Your task to perform on an android device: toggle translation in the chrome app Image 0: 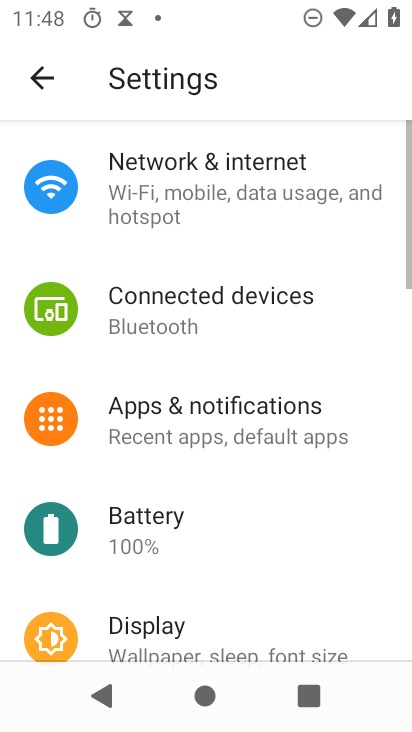
Step 0: press home button
Your task to perform on an android device: toggle translation in the chrome app Image 1: 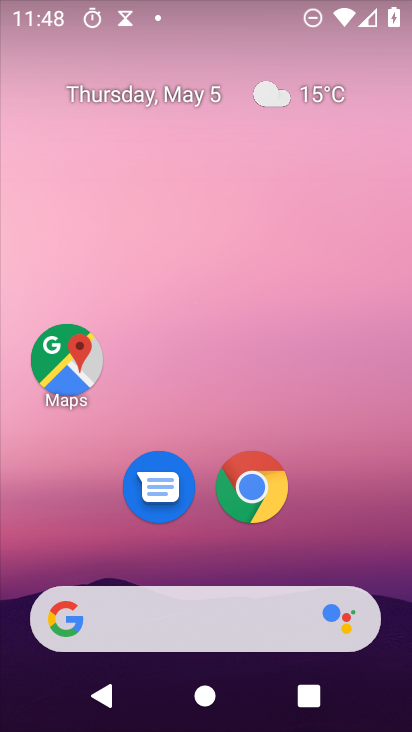
Step 1: drag from (311, 524) to (168, 3)
Your task to perform on an android device: toggle translation in the chrome app Image 2: 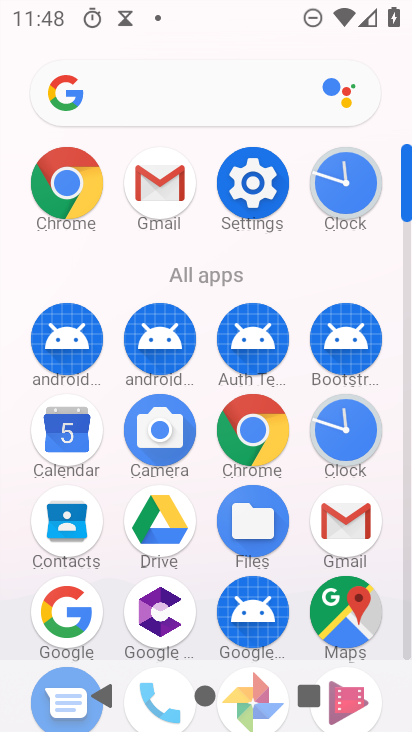
Step 2: click (67, 191)
Your task to perform on an android device: toggle translation in the chrome app Image 3: 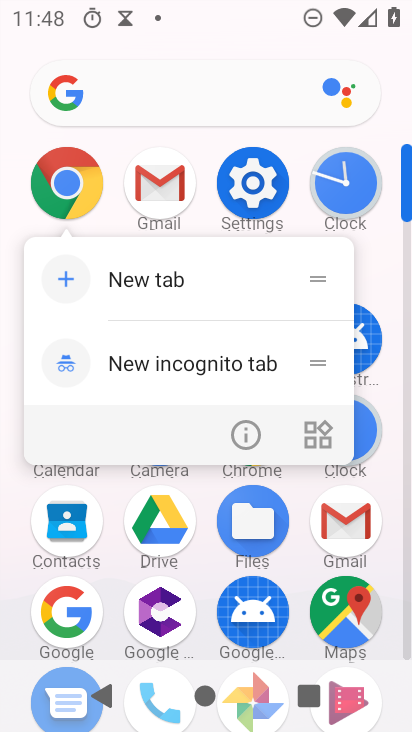
Step 3: click (67, 191)
Your task to perform on an android device: toggle translation in the chrome app Image 4: 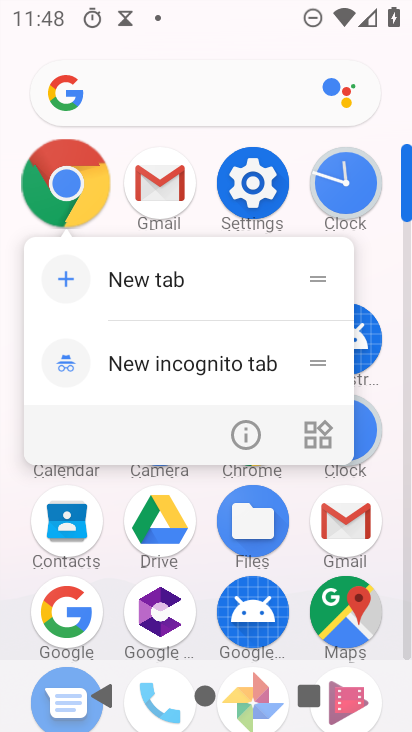
Step 4: click (67, 191)
Your task to perform on an android device: toggle translation in the chrome app Image 5: 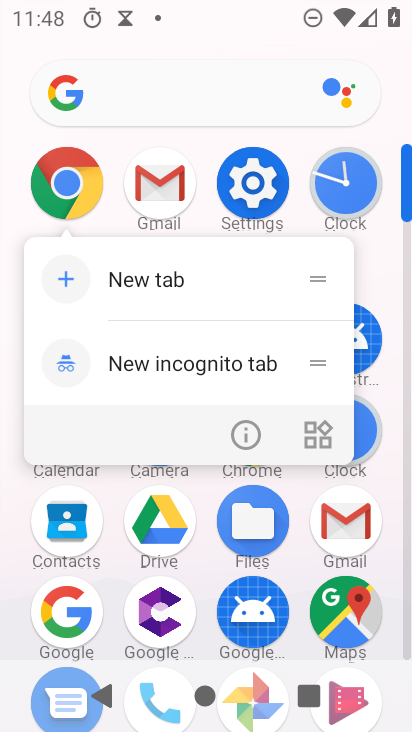
Step 5: click (67, 191)
Your task to perform on an android device: toggle translation in the chrome app Image 6: 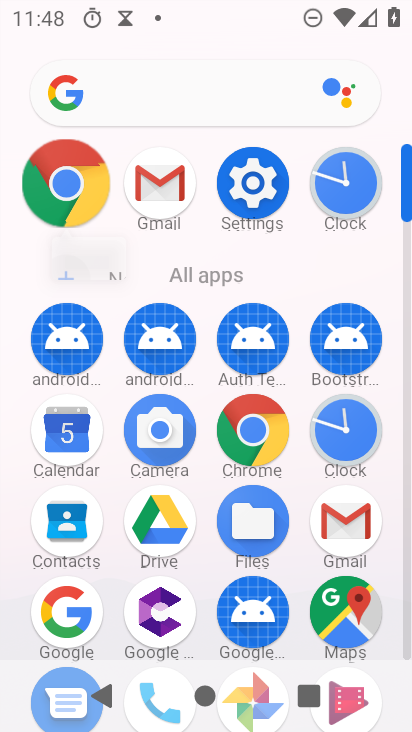
Step 6: click (67, 191)
Your task to perform on an android device: toggle translation in the chrome app Image 7: 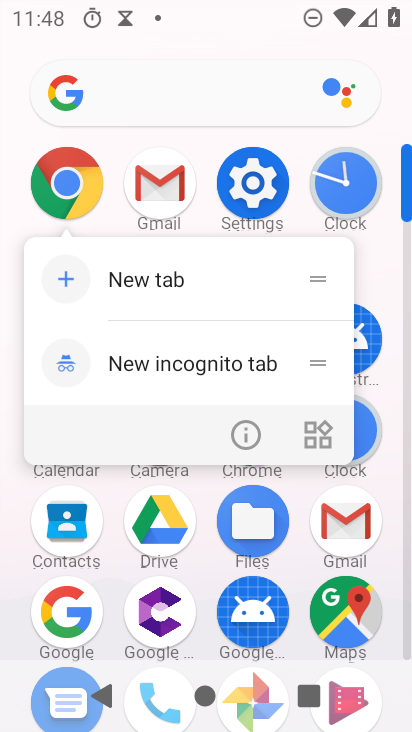
Step 7: click (67, 191)
Your task to perform on an android device: toggle translation in the chrome app Image 8: 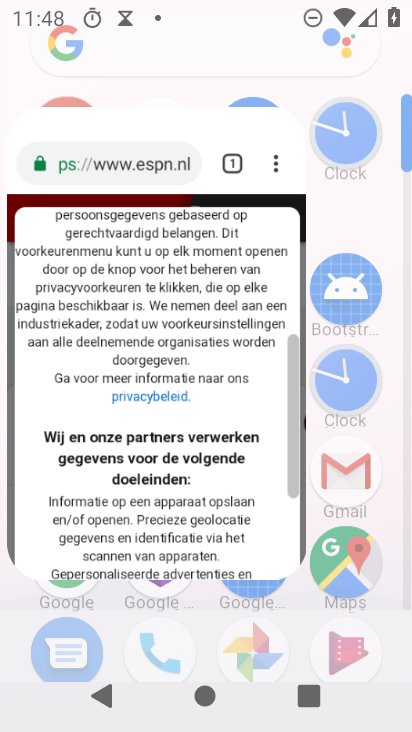
Step 8: click (71, 191)
Your task to perform on an android device: toggle translation in the chrome app Image 9: 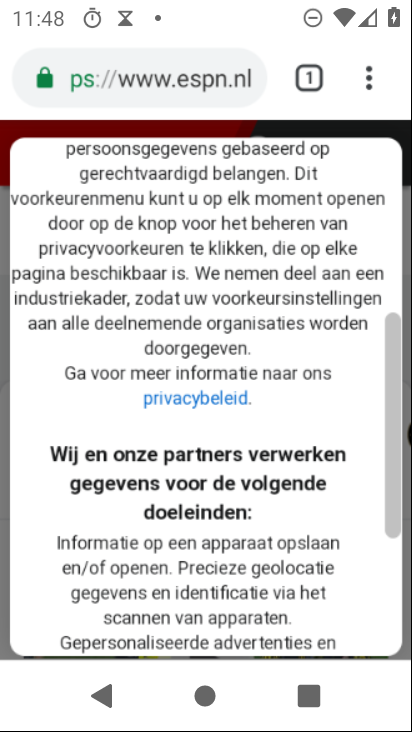
Step 9: click (71, 191)
Your task to perform on an android device: toggle translation in the chrome app Image 10: 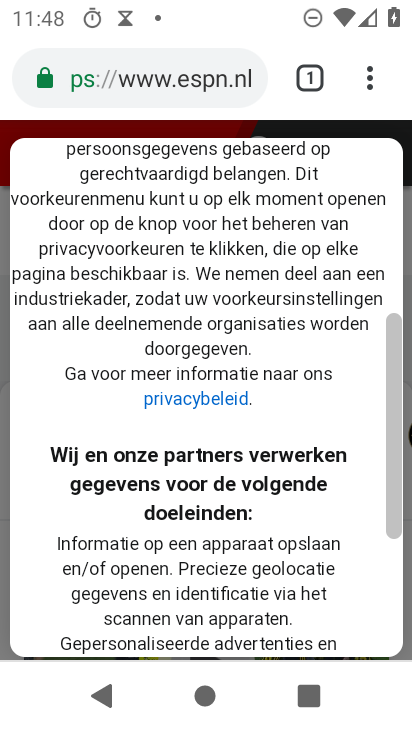
Step 10: drag from (359, 76) to (85, 553)
Your task to perform on an android device: toggle translation in the chrome app Image 11: 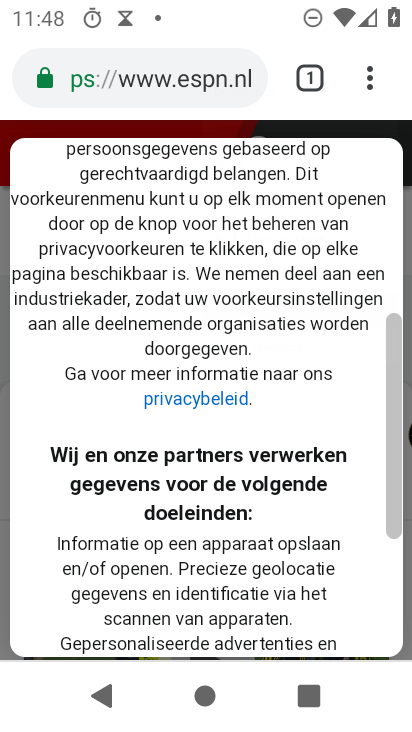
Step 11: click (86, 552)
Your task to perform on an android device: toggle translation in the chrome app Image 12: 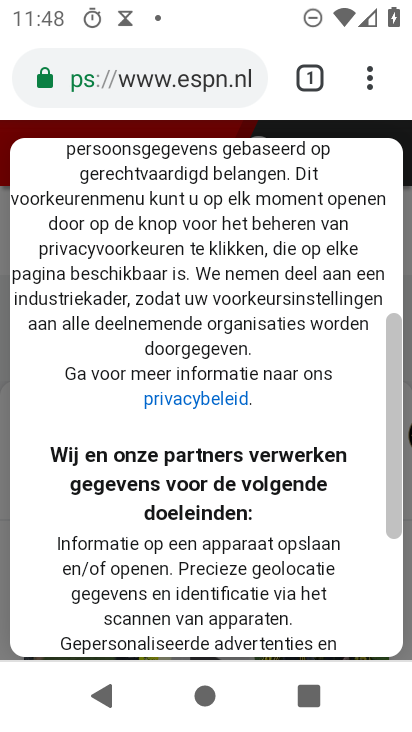
Step 12: click (86, 552)
Your task to perform on an android device: toggle translation in the chrome app Image 13: 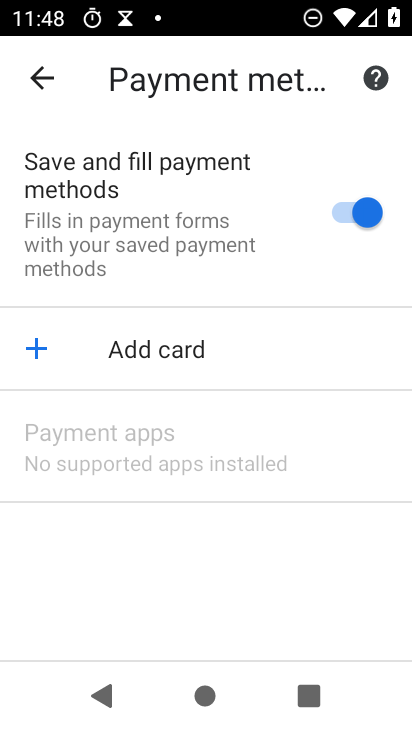
Step 13: click (41, 82)
Your task to perform on an android device: toggle translation in the chrome app Image 14: 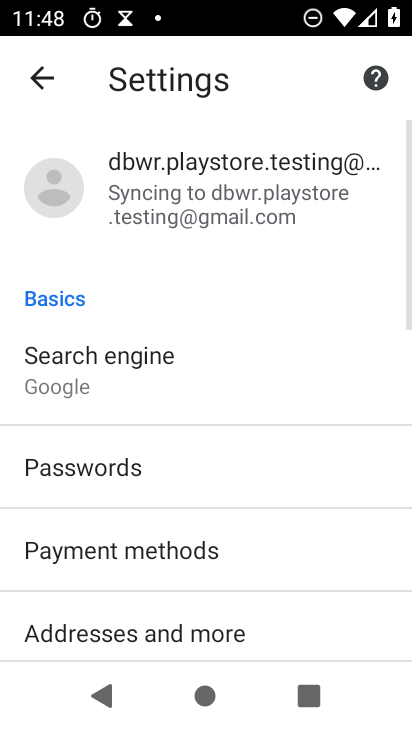
Step 14: drag from (212, 590) to (301, 121)
Your task to perform on an android device: toggle translation in the chrome app Image 15: 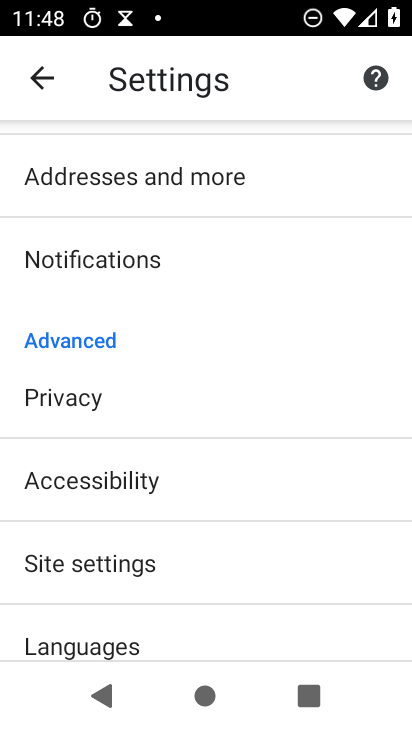
Step 15: click (105, 647)
Your task to perform on an android device: toggle translation in the chrome app Image 16: 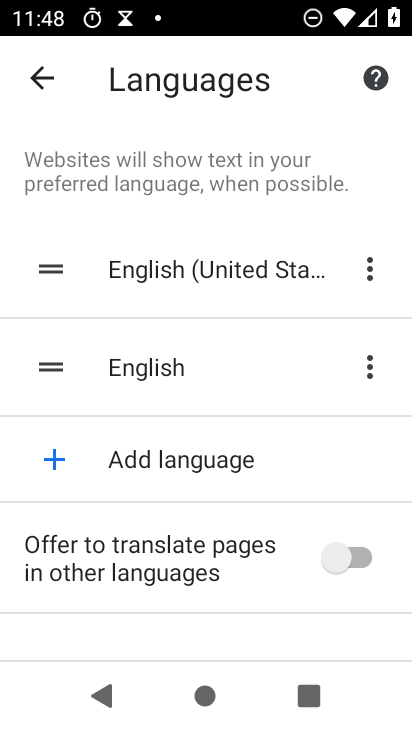
Step 16: click (317, 547)
Your task to perform on an android device: toggle translation in the chrome app Image 17: 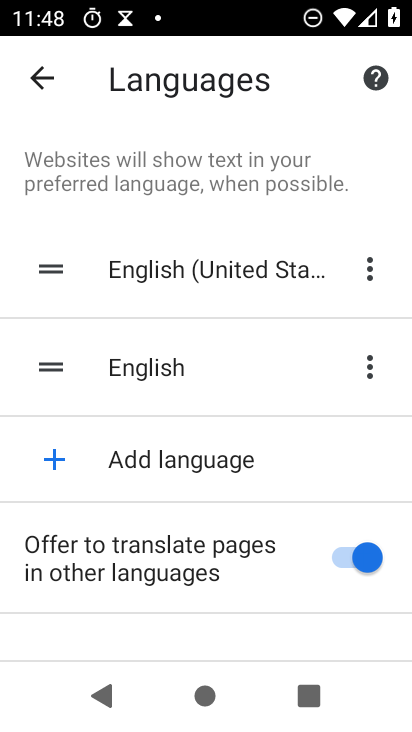
Step 17: task complete